Your task to perform on an android device: Go to Yahoo.com Image 0: 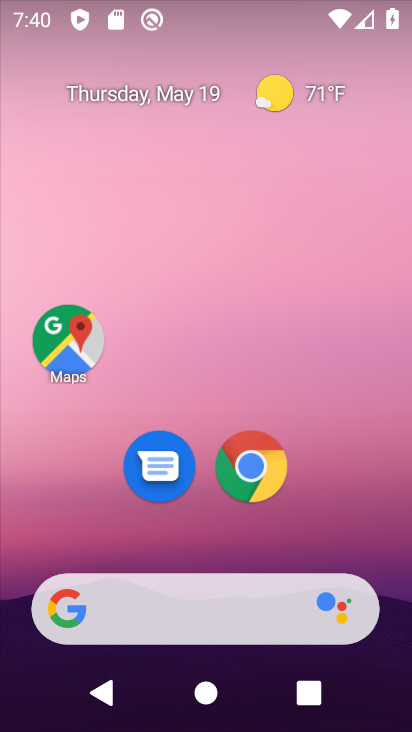
Step 0: drag from (366, 487) to (271, 50)
Your task to perform on an android device: Go to Yahoo.com Image 1: 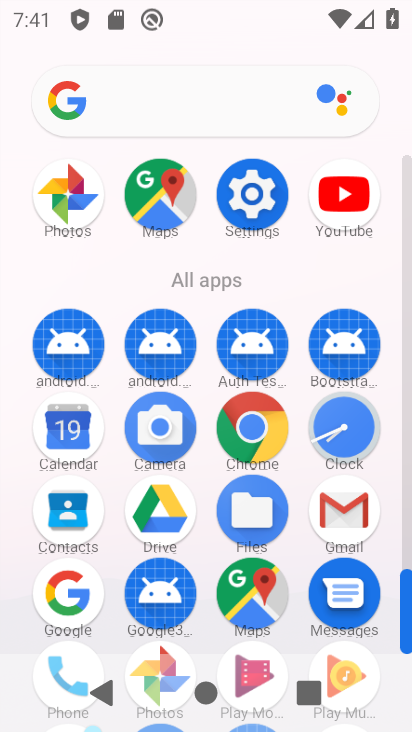
Step 1: click (251, 426)
Your task to perform on an android device: Go to Yahoo.com Image 2: 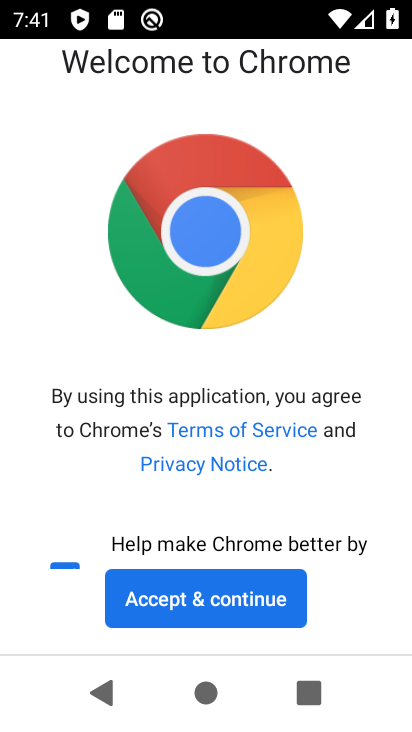
Step 2: click (236, 599)
Your task to perform on an android device: Go to Yahoo.com Image 3: 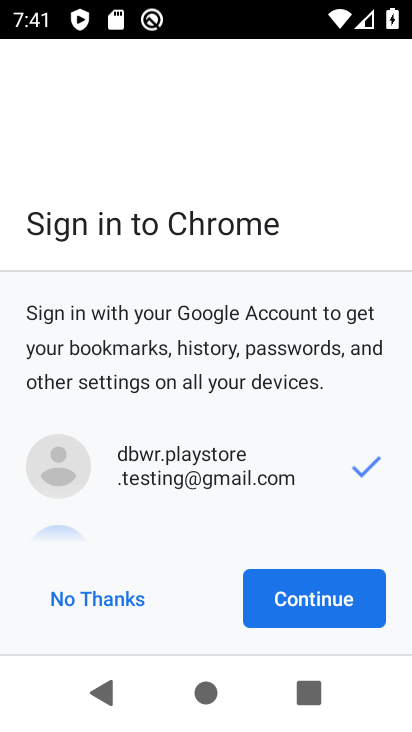
Step 3: click (312, 598)
Your task to perform on an android device: Go to Yahoo.com Image 4: 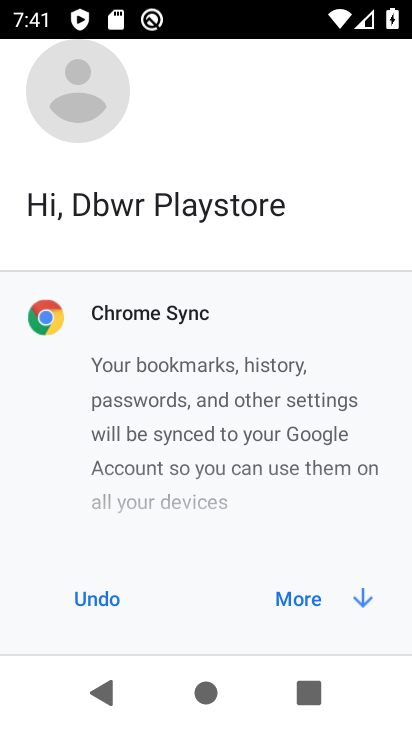
Step 4: click (294, 591)
Your task to perform on an android device: Go to Yahoo.com Image 5: 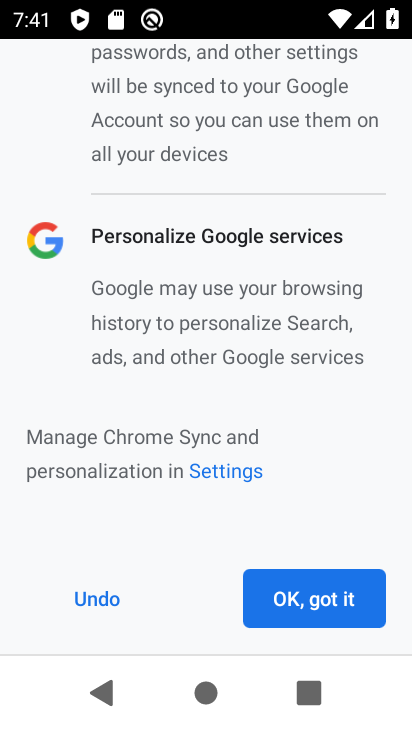
Step 5: click (304, 593)
Your task to perform on an android device: Go to Yahoo.com Image 6: 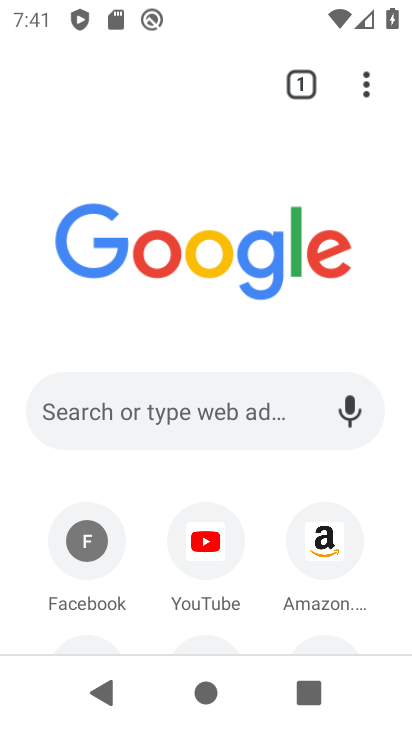
Step 6: click (154, 407)
Your task to perform on an android device: Go to Yahoo.com Image 7: 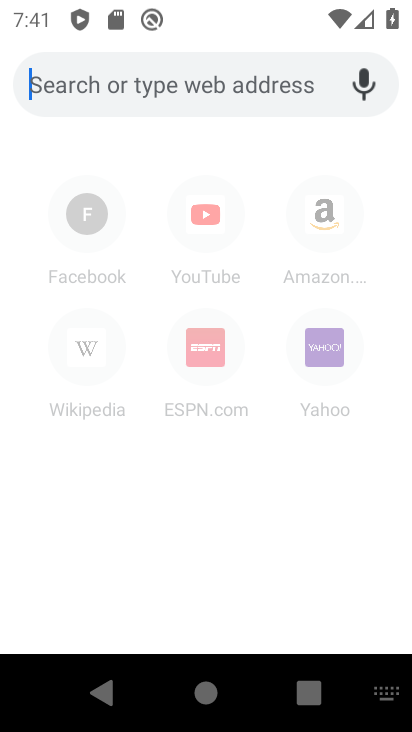
Step 7: click (323, 345)
Your task to perform on an android device: Go to Yahoo.com Image 8: 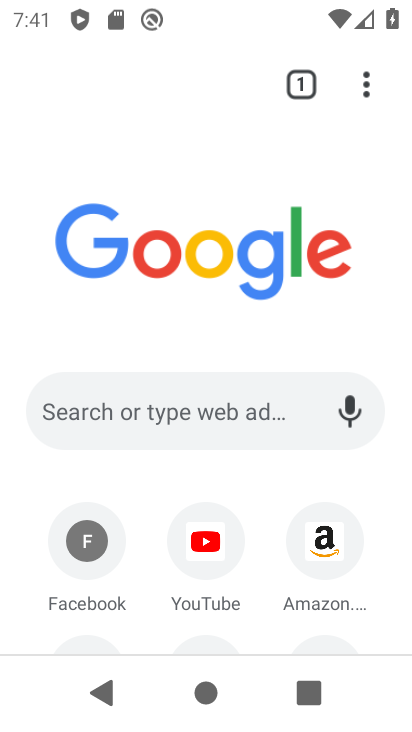
Step 8: drag from (26, 529) to (29, 262)
Your task to perform on an android device: Go to Yahoo.com Image 9: 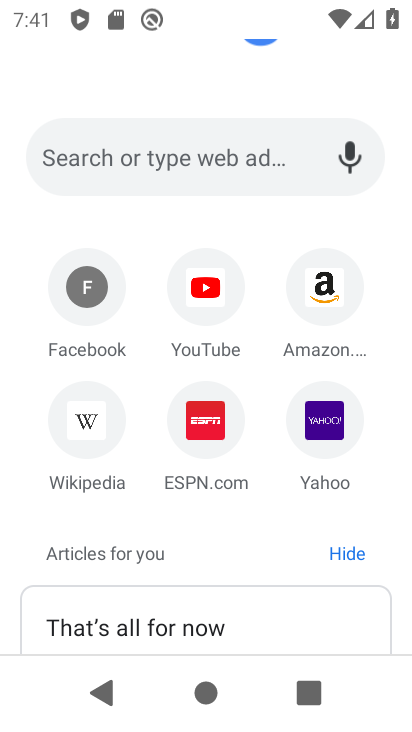
Step 9: click (320, 413)
Your task to perform on an android device: Go to Yahoo.com Image 10: 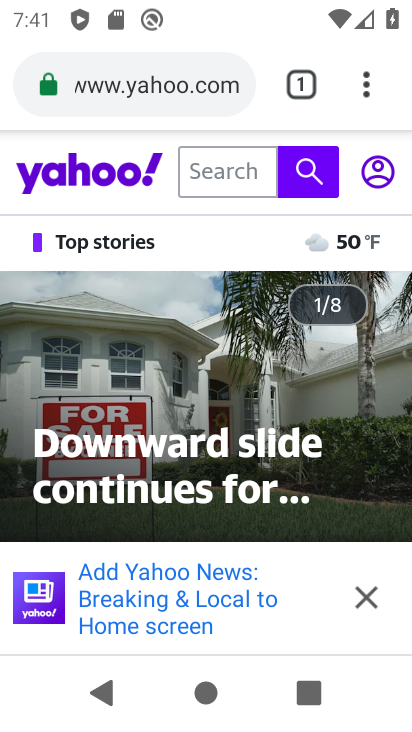
Step 10: task complete